Your task to perform on an android device: turn on bluetooth scan Image 0: 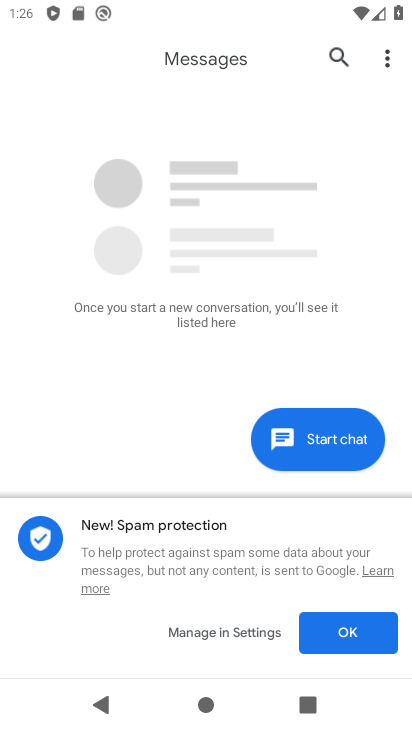
Step 0: press home button
Your task to perform on an android device: turn on bluetooth scan Image 1: 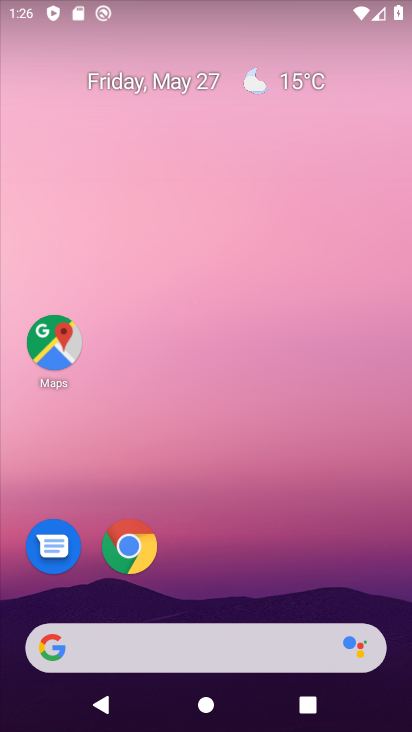
Step 1: drag from (403, 596) to (375, 195)
Your task to perform on an android device: turn on bluetooth scan Image 2: 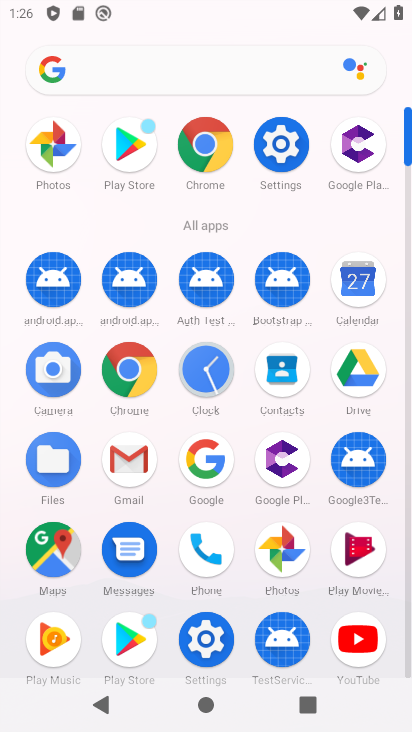
Step 2: click (207, 648)
Your task to perform on an android device: turn on bluetooth scan Image 3: 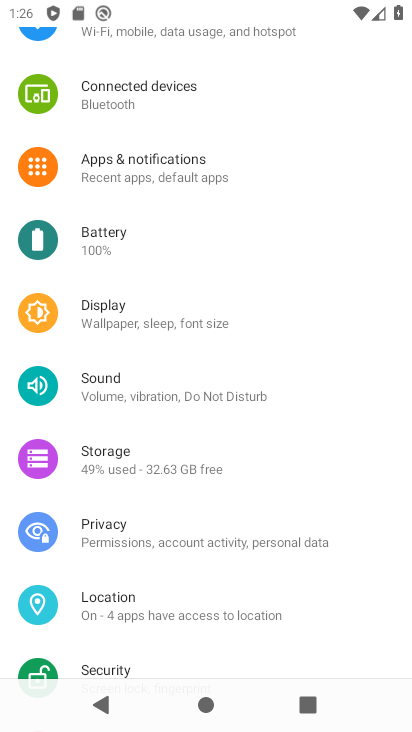
Step 3: click (136, 606)
Your task to perform on an android device: turn on bluetooth scan Image 4: 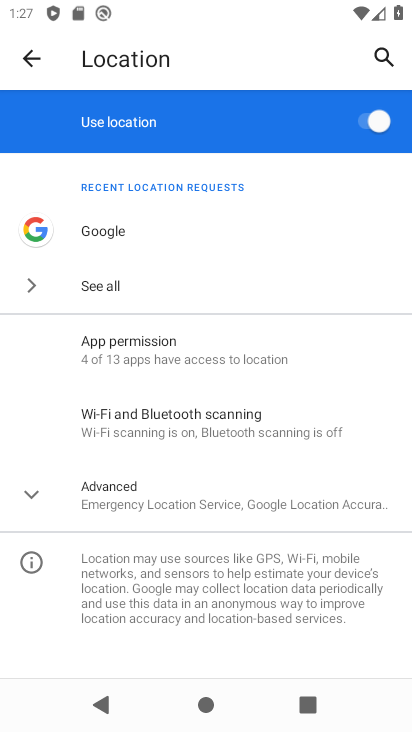
Step 4: click (233, 406)
Your task to perform on an android device: turn on bluetooth scan Image 5: 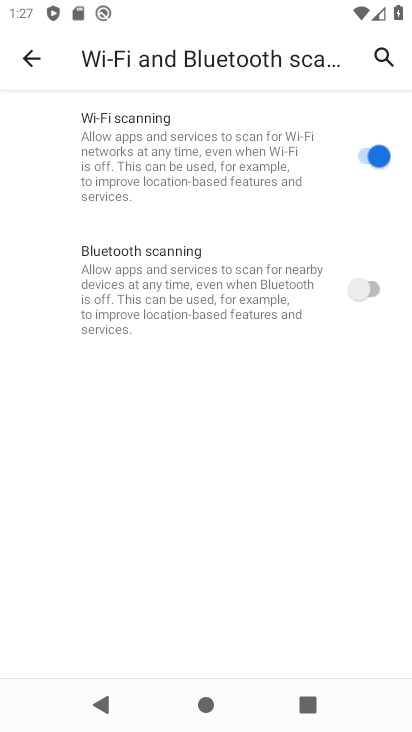
Step 5: click (375, 288)
Your task to perform on an android device: turn on bluetooth scan Image 6: 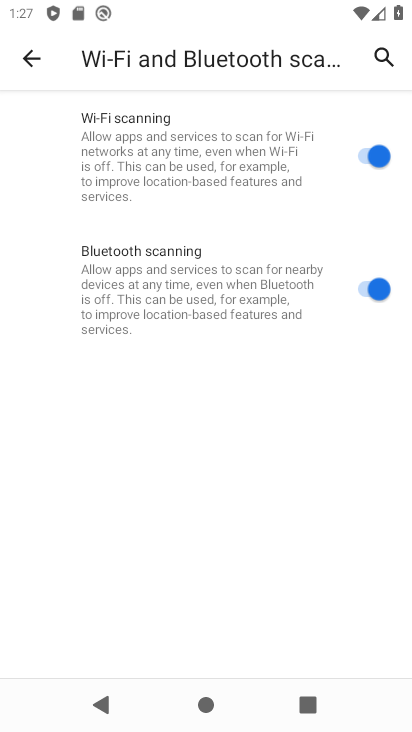
Step 6: task complete